Your task to perform on an android device: Open notification settings Image 0: 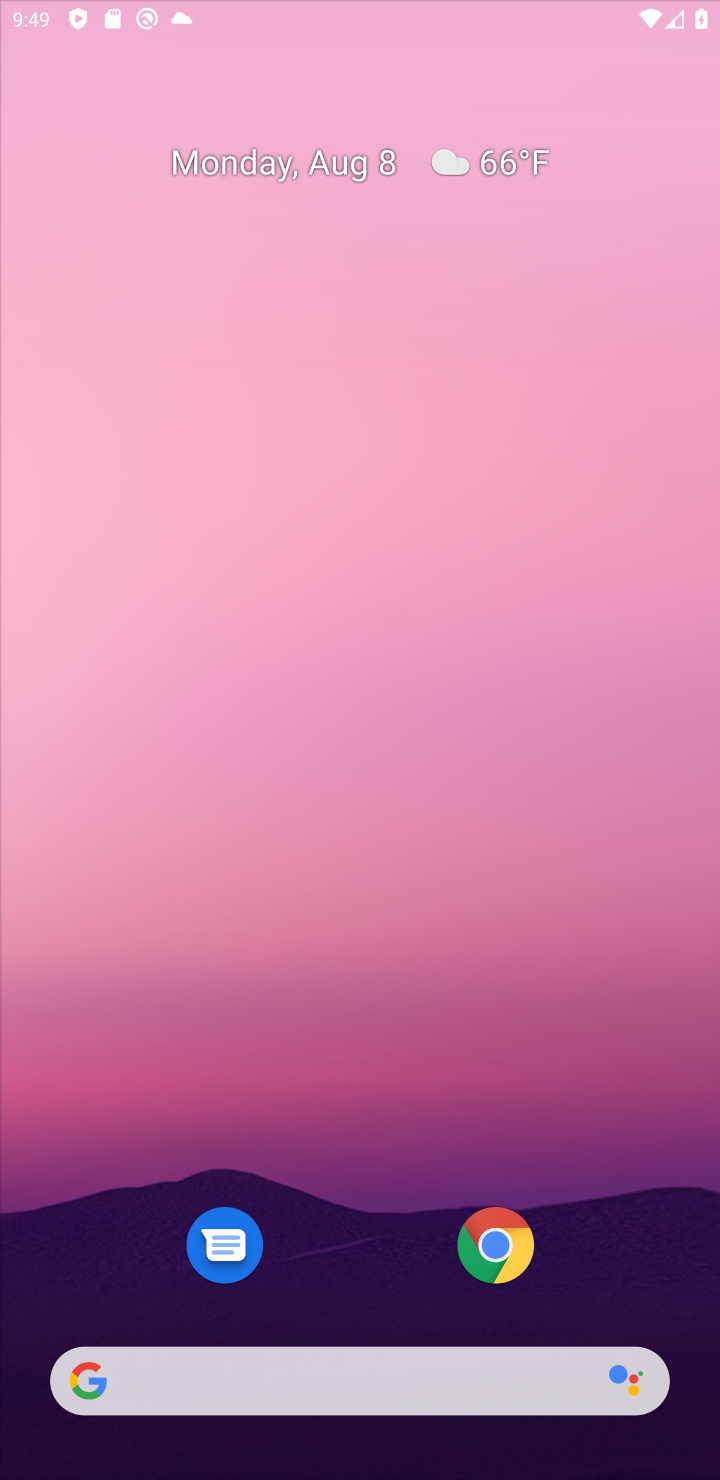
Step 0: press home button
Your task to perform on an android device: Open notification settings Image 1: 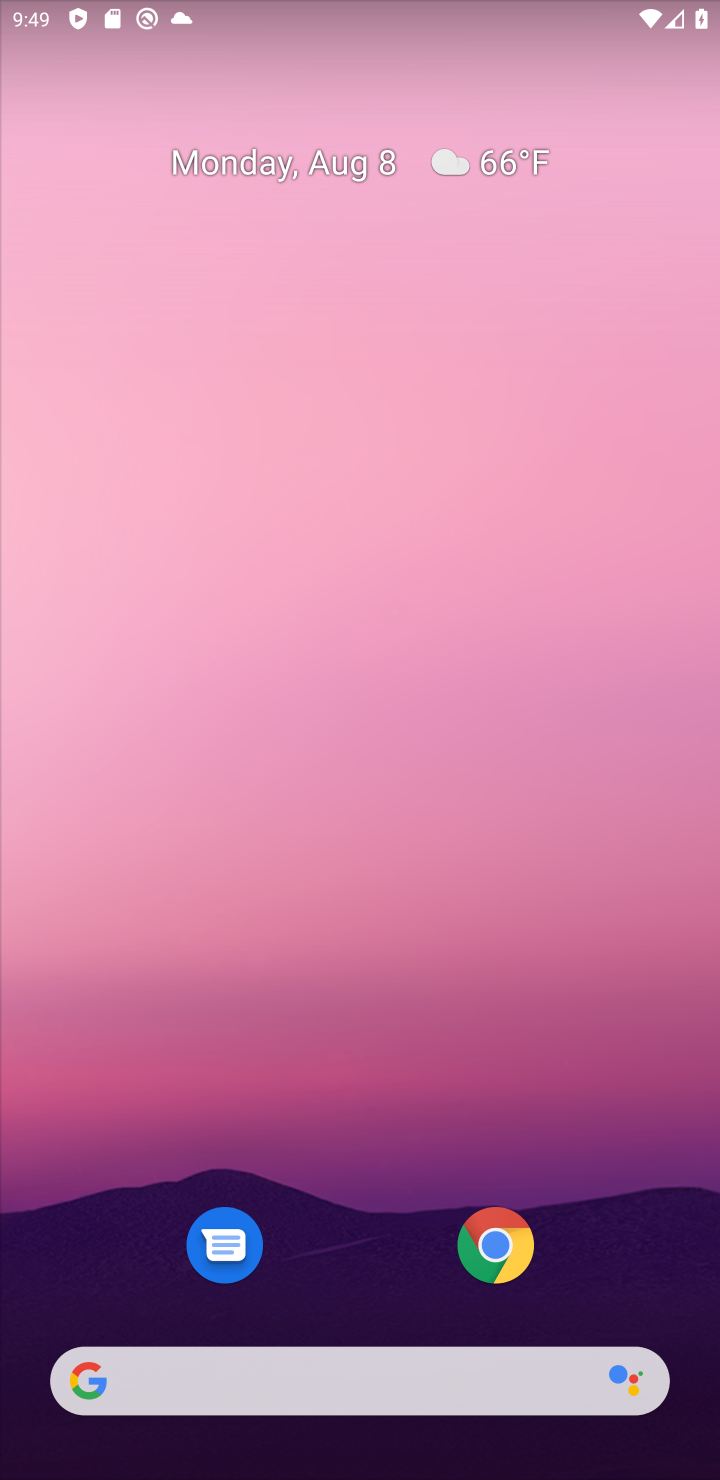
Step 1: drag from (374, 1266) to (374, 467)
Your task to perform on an android device: Open notification settings Image 2: 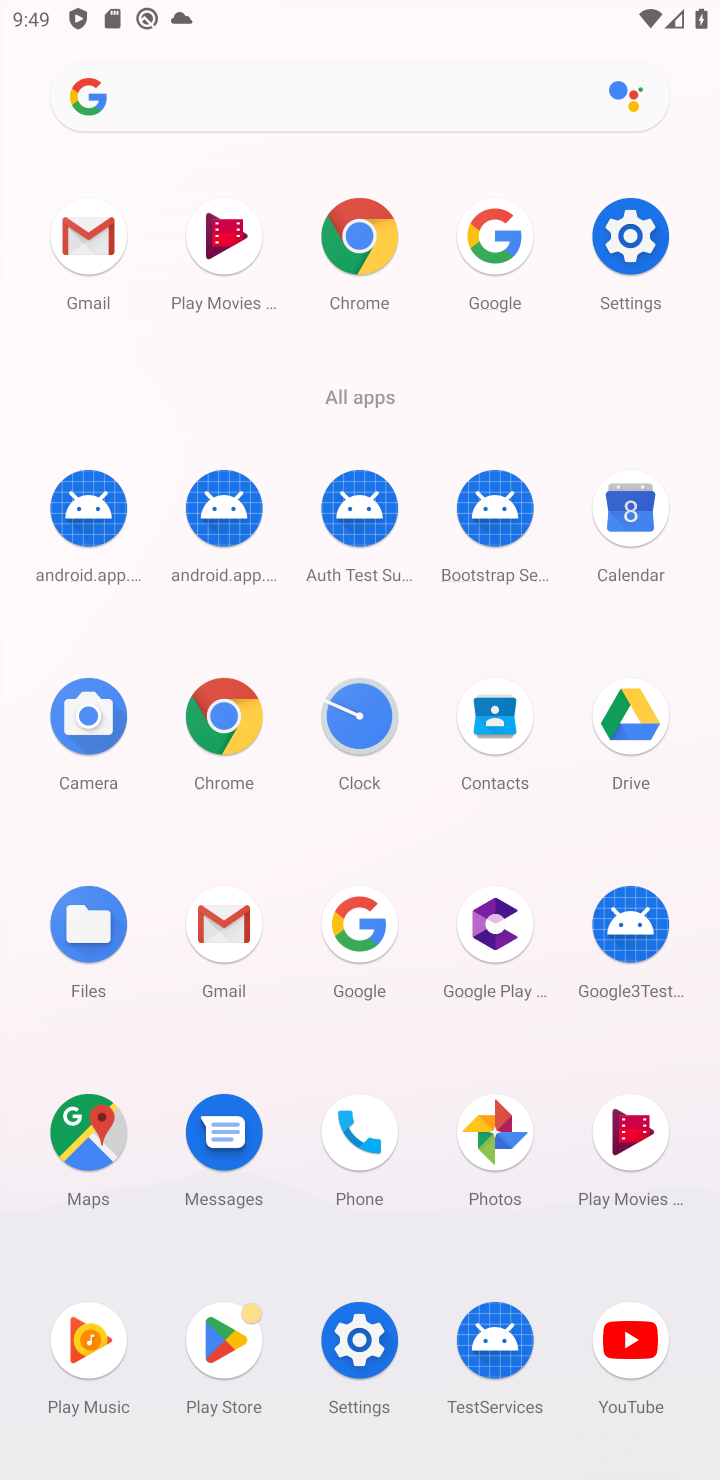
Step 2: click (624, 233)
Your task to perform on an android device: Open notification settings Image 3: 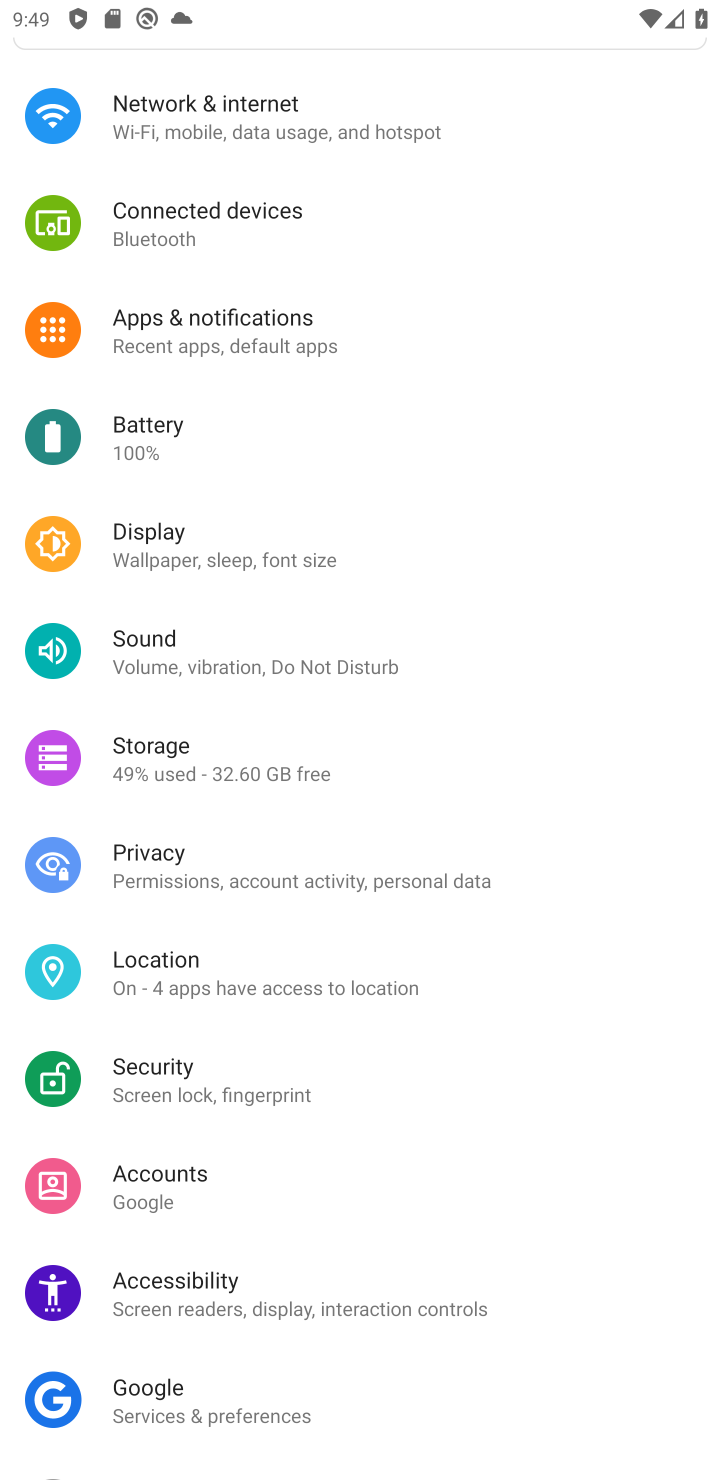
Step 3: click (231, 310)
Your task to perform on an android device: Open notification settings Image 4: 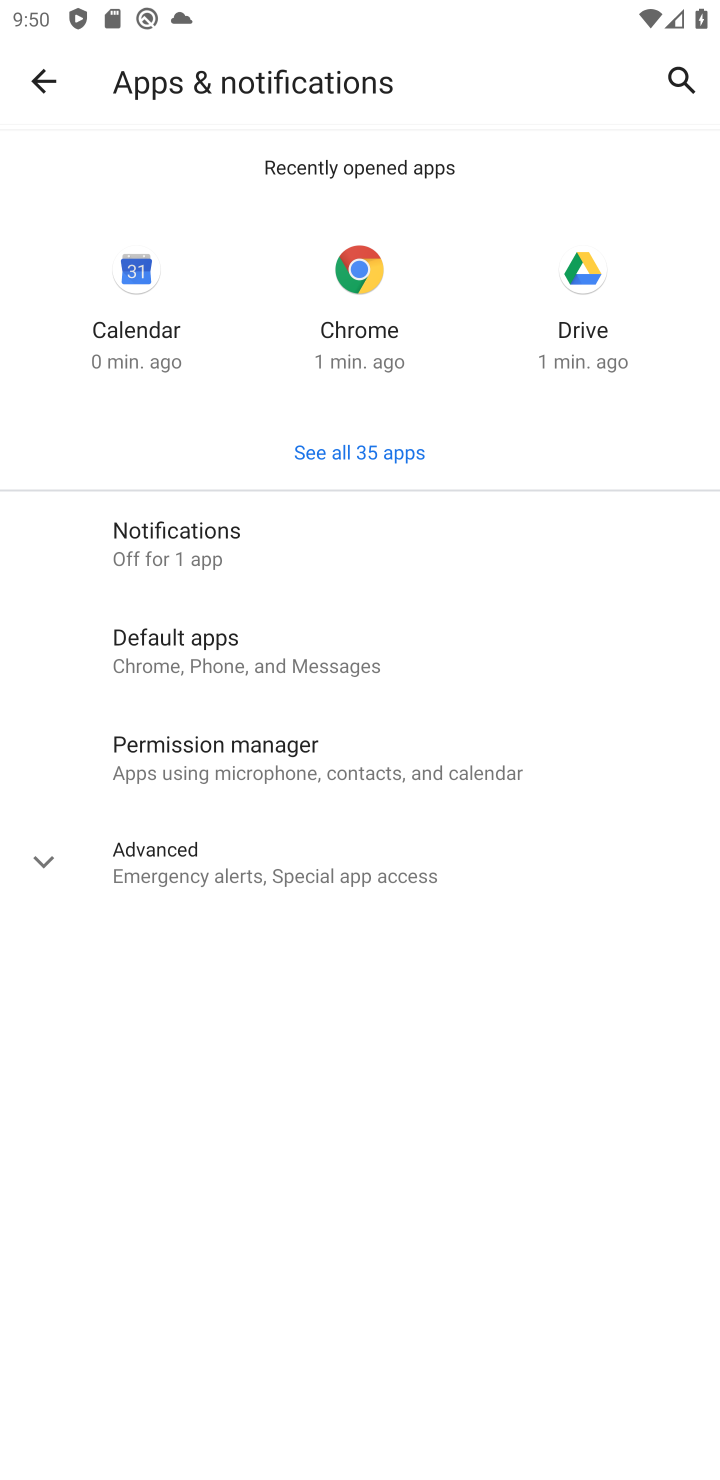
Step 4: task complete